Your task to perform on an android device: turn pop-ups off in chrome Image 0: 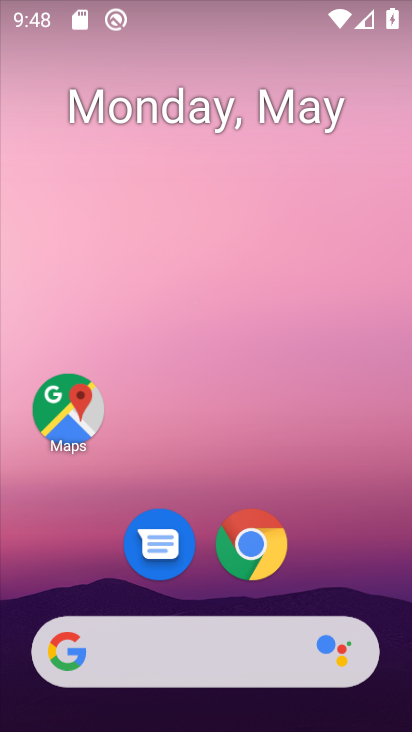
Step 0: click (258, 540)
Your task to perform on an android device: turn pop-ups off in chrome Image 1: 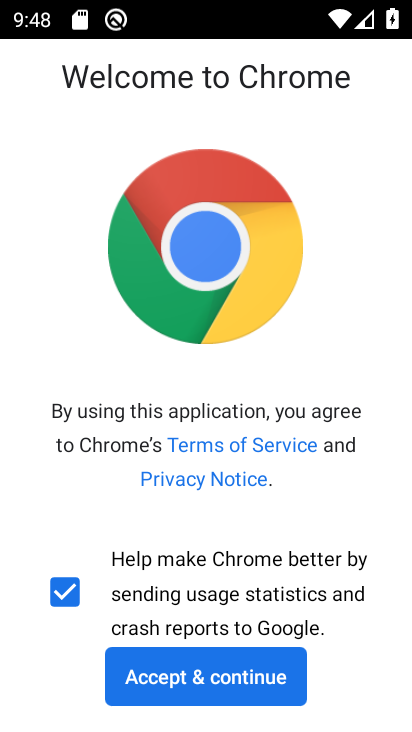
Step 1: click (202, 676)
Your task to perform on an android device: turn pop-ups off in chrome Image 2: 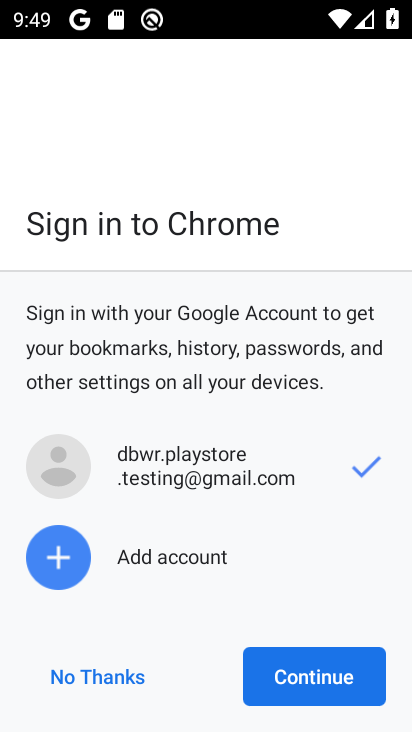
Step 2: click (327, 672)
Your task to perform on an android device: turn pop-ups off in chrome Image 3: 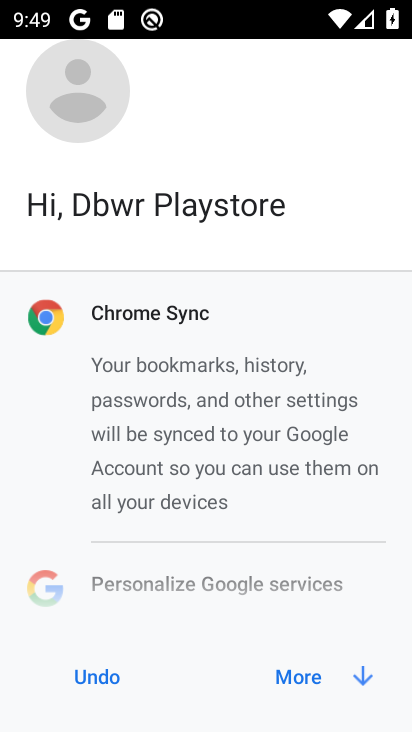
Step 3: click (327, 672)
Your task to perform on an android device: turn pop-ups off in chrome Image 4: 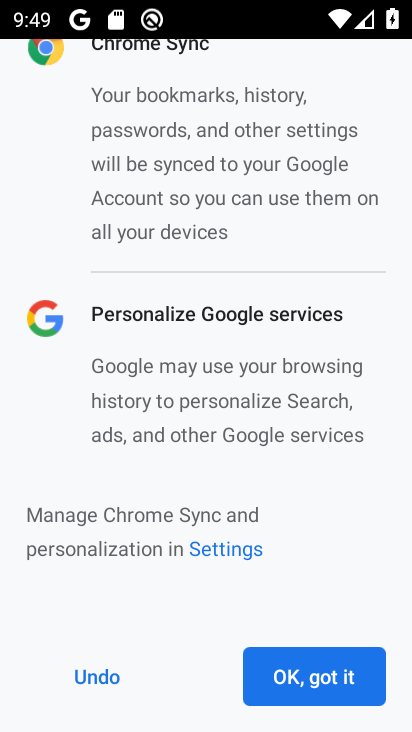
Step 4: click (327, 672)
Your task to perform on an android device: turn pop-ups off in chrome Image 5: 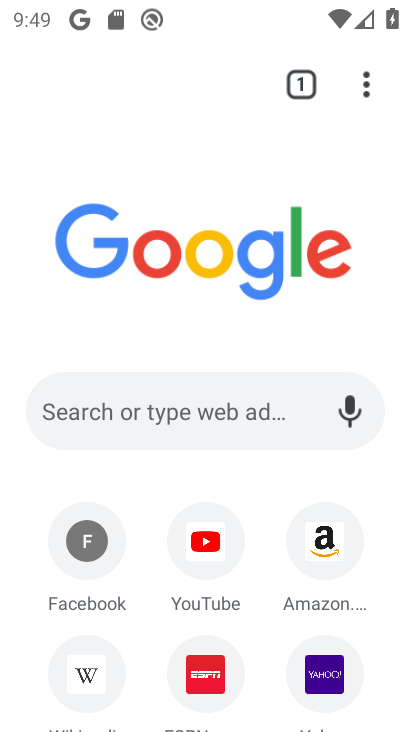
Step 5: click (366, 86)
Your task to perform on an android device: turn pop-ups off in chrome Image 6: 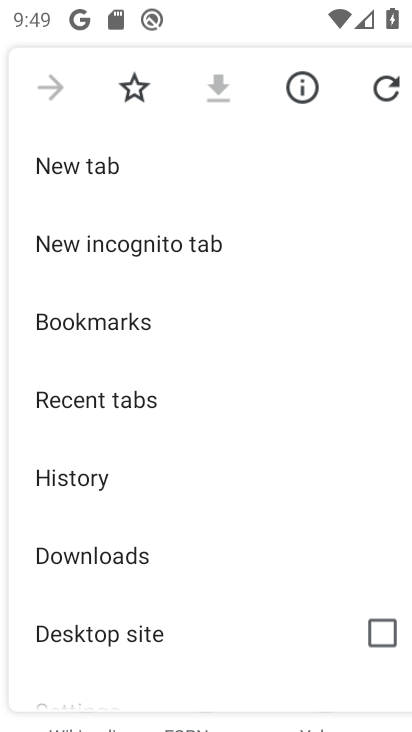
Step 6: drag from (134, 618) to (121, 301)
Your task to perform on an android device: turn pop-ups off in chrome Image 7: 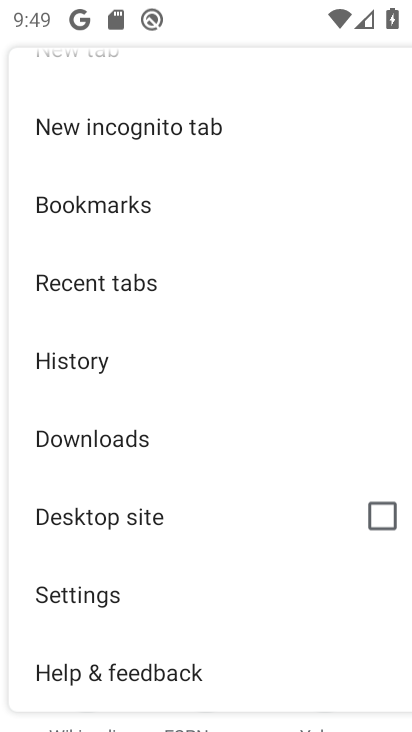
Step 7: click (89, 588)
Your task to perform on an android device: turn pop-ups off in chrome Image 8: 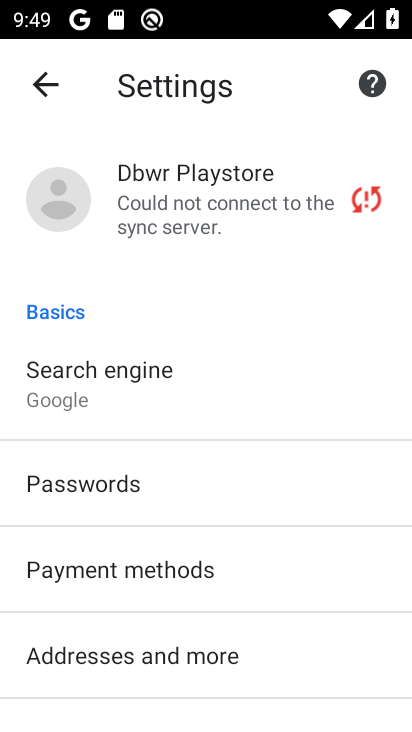
Step 8: drag from (263, 616) to (241, 253)
Your task to perform on an android device: turn pop-ups off in chrome Image 9: 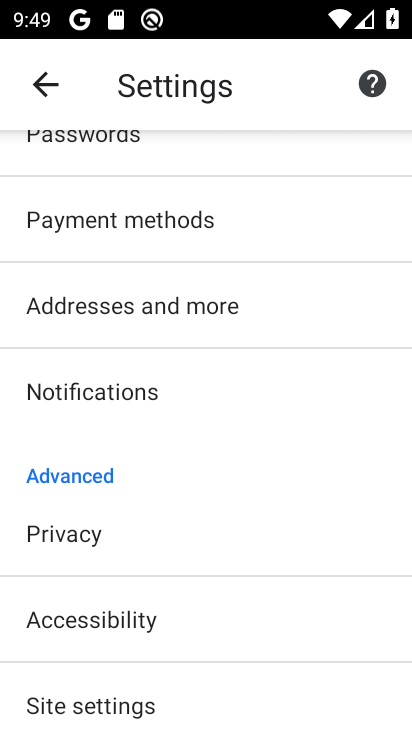
Step 9: click (104, 700)
Your task to perform on an android device: turn pop-ups off in chrome Image 10: 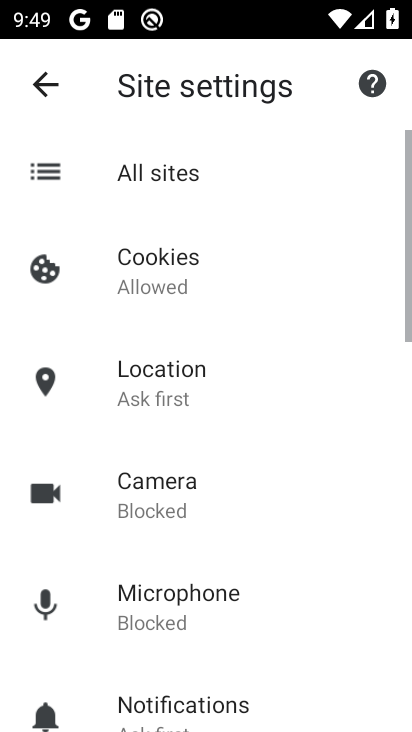
Step 10: drag from (104, 700) to (88, 327)
Your task to perform on an android device: turn pop-ups off in chrome Image 11: 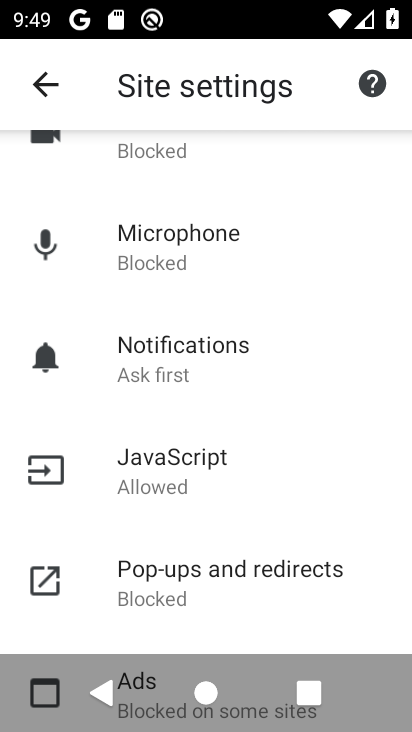
Step 11: click (154, 579)
Your task to perform on an android device: turn pop-ups off in chrome Image 12: 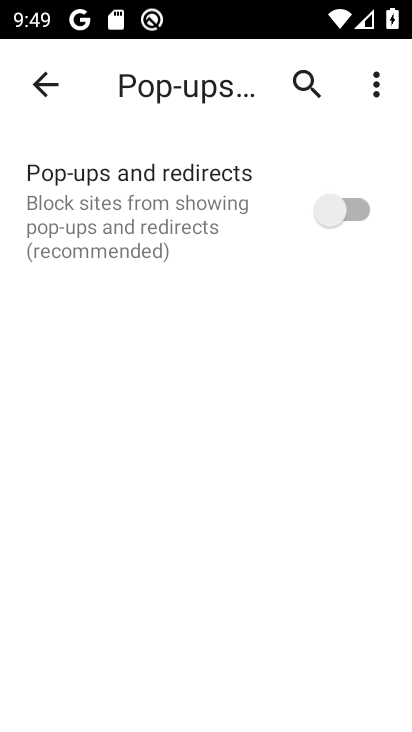
Step 12: task complete